Your task to perform on an android device: Is it going to rain today? Image 0: 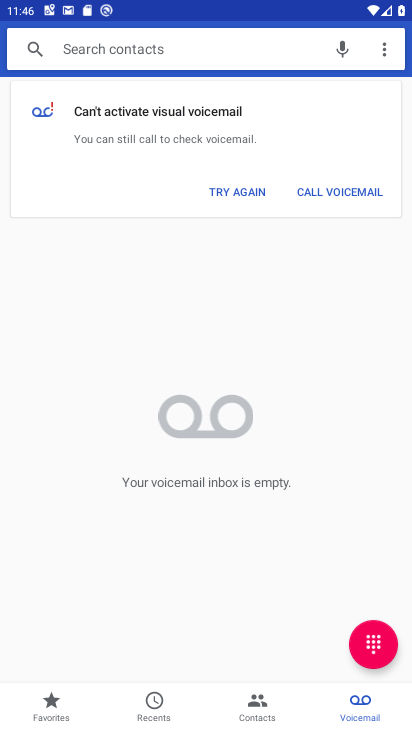
Step 0: press home button
Your task to perform on an android device: Is it going to rain today? Image 1: 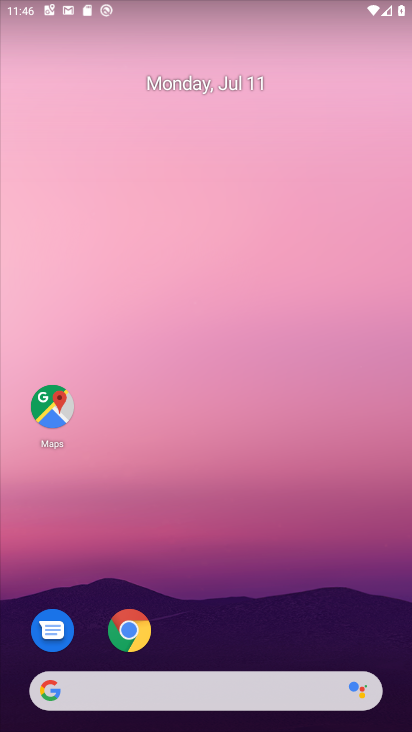
Step 1: drag from (222, 569) to (204, 195)
Your task to perform on an android device: Is it going to rain today? Image 2: 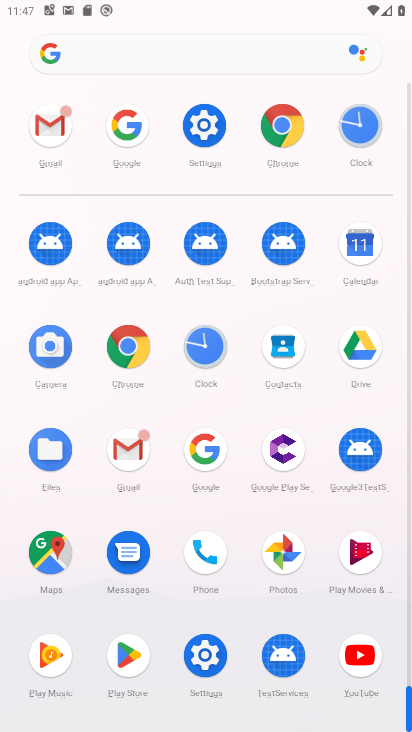
Step 2: click (205, 457)
Your task to perform on an android device: Is it going to rain today? Image 3: 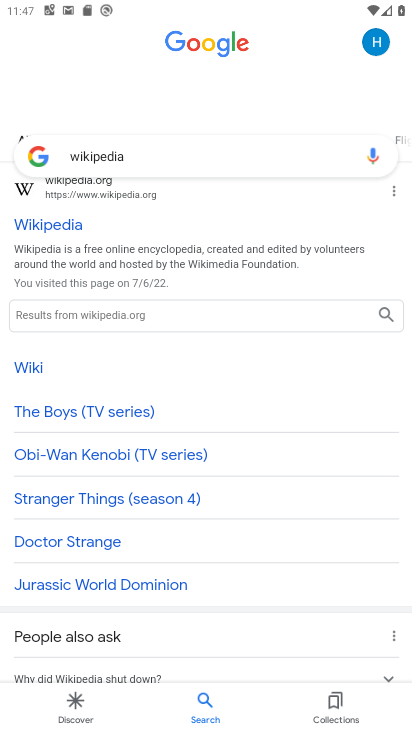
Step 3: click (255, 149)
Your task to perform on an android device: Is it going to rain today? Image 4: 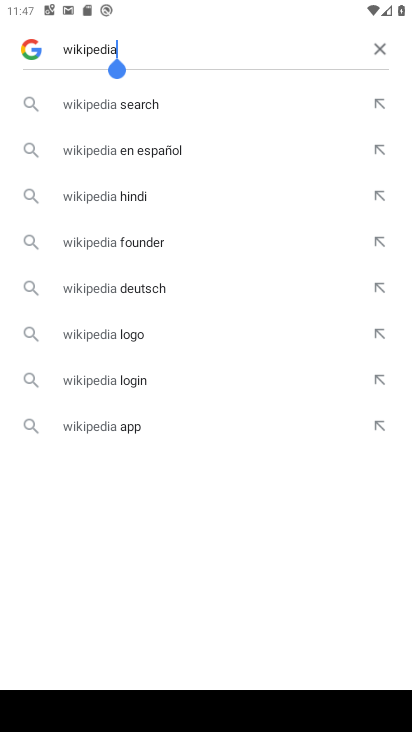
Step 4: click (378, 59)
Your task to perform on an android device: Is it going to rain today? Image 5: 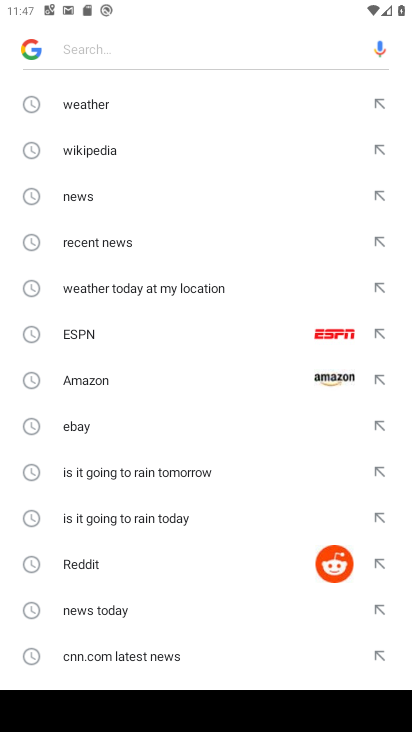
Step 5: click (127, 101)
Your task to perform on an android device: Is it going to rain today? Image 6: 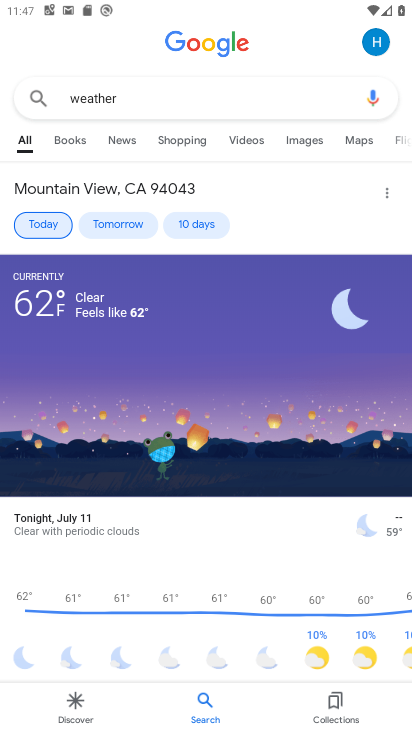
Step 6: task complete